Your task to perform on an android device: Is it going to rain today? Image 0: 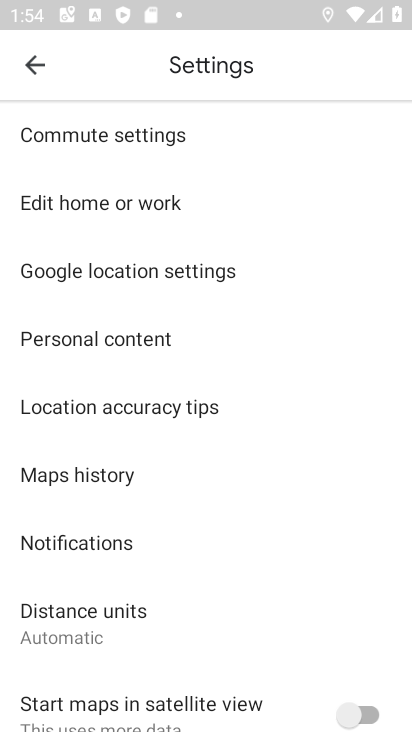
Step 0: press home button
Your task to perform on an android device: Is it going to rain today? Image 1: 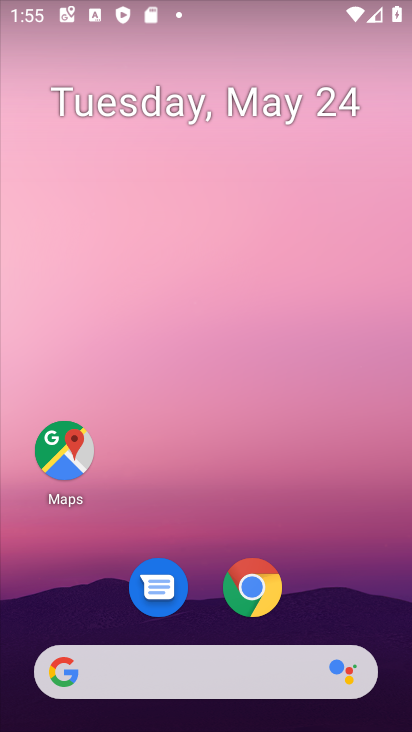
Step 1: click (157, 662)
Your task to perform on an android device: Is it going to rain today? Image 2: 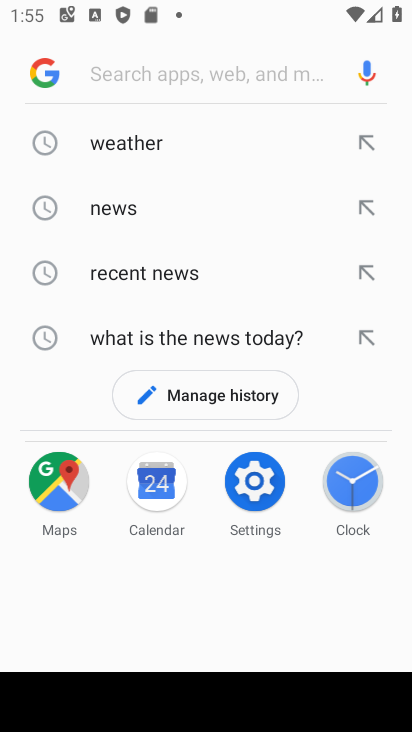
Step 2: type "Is it going to rain today?"
Your task to perform on an android device: Is it going to rain today? Image 3: 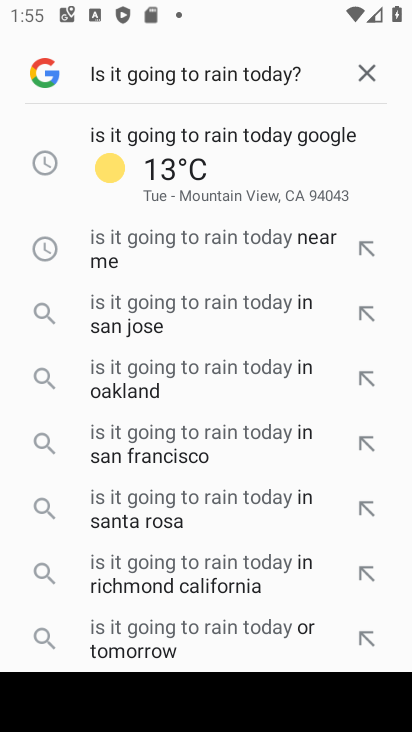
Step 3: click (286, 152)
Your task to perform on an android device: Is it going to rain today? Image 4: 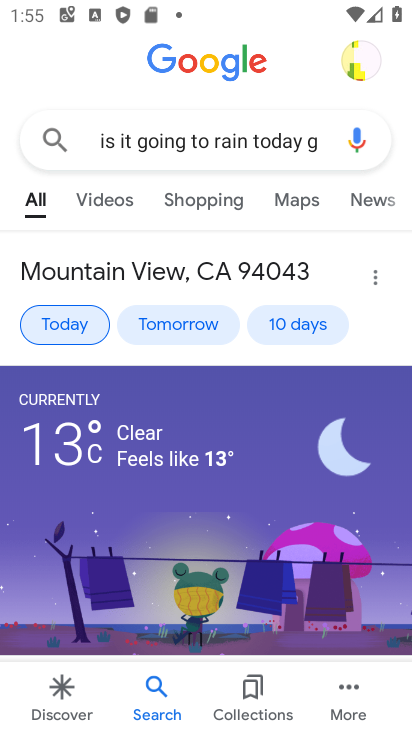
Step 4: task complete